Your task to perform on an android device: Open Google Chrome Image 0: 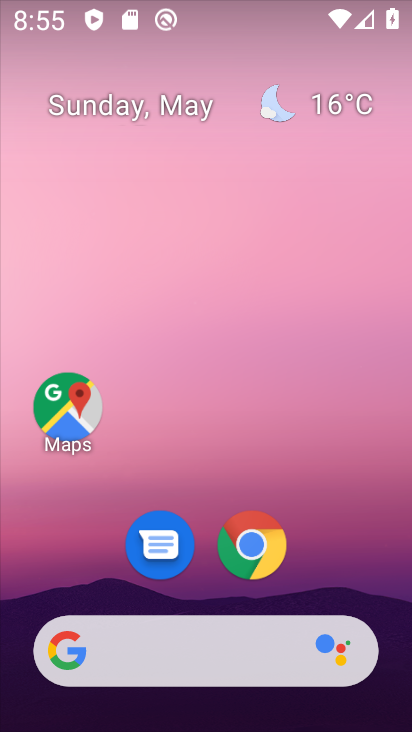
Step 0: click (264, 545)
Your task to perform on an android device: Open Google Chrome Image 1: 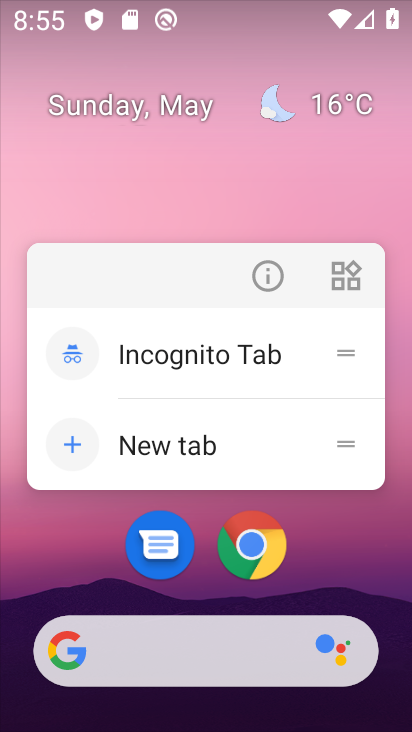
Step 1: click (264, 545)
Your task to perform on an android device: Open Google Chrome Image 2: 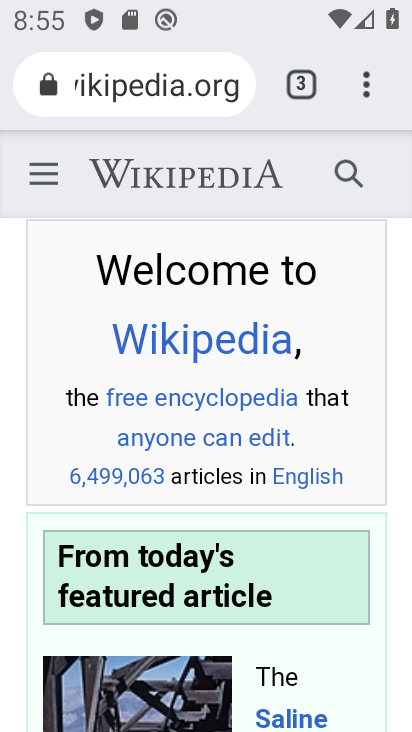
Step 2: task complete